Your task to perform on an android device: remove spam from my inbox in the gmail app Image 0: 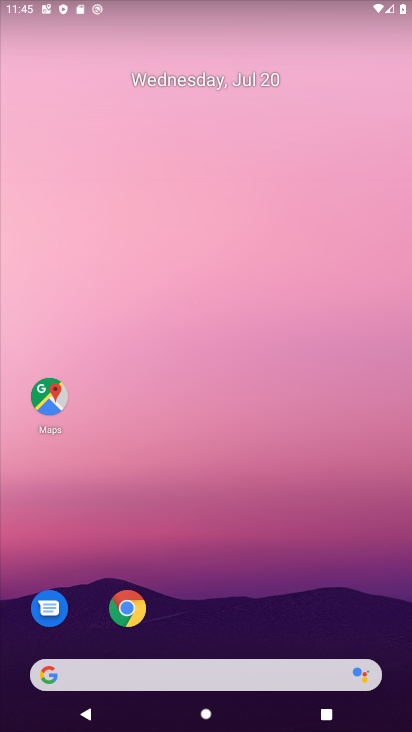
Step 0: drag from (308, 626) to (7, 238)
Your task to perform on an android device: remove spam from my inbox in the gmail app Image 1: 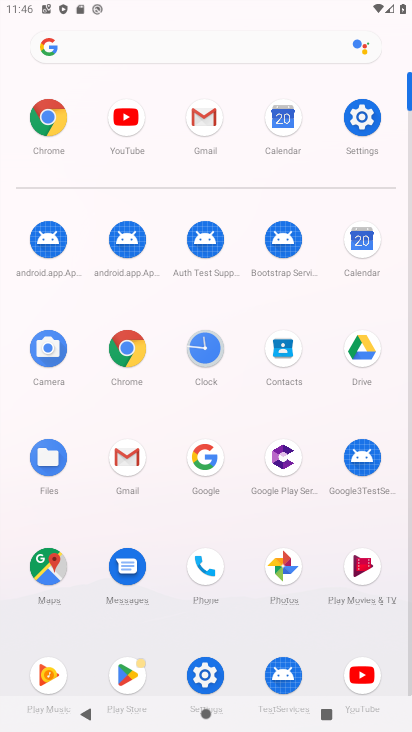
Step 1: click (127, 476)
Your task to perform on an android device: remove spam from my inbox in the gmail app Image 2: 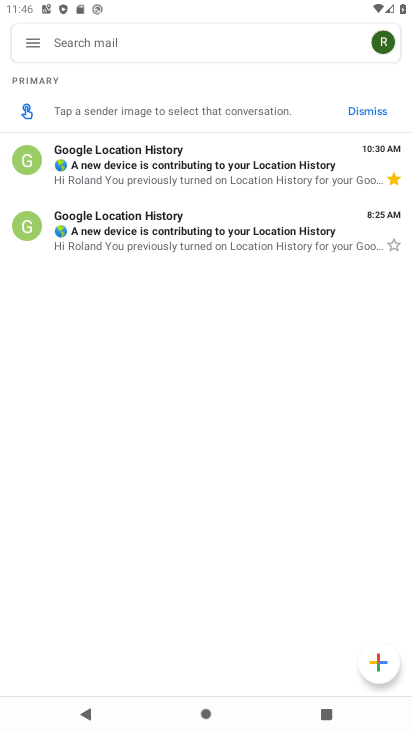
Step 2: task complete